Your task to perform on an android device: open a bookmark in the chrome app Image 0: 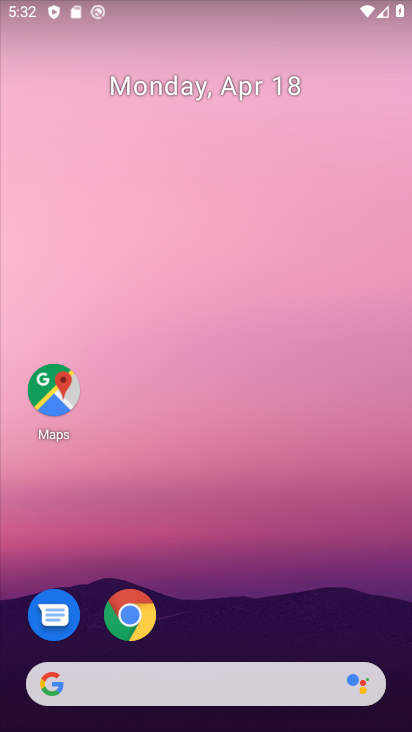
Step 0: drag from (299, 529) to (222, 61)
Your task to perform on an android device: open a bookmark in the chrome app Image 1: 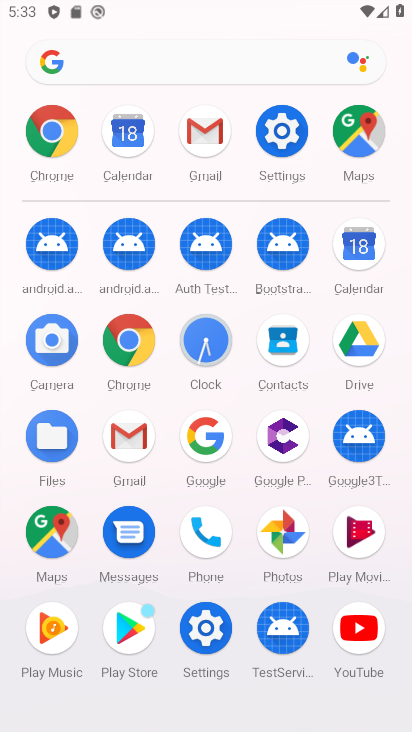
Step 1: click (53, 133)
Your task to perform on an android device: open a bookmark in the chrome app Image 2: 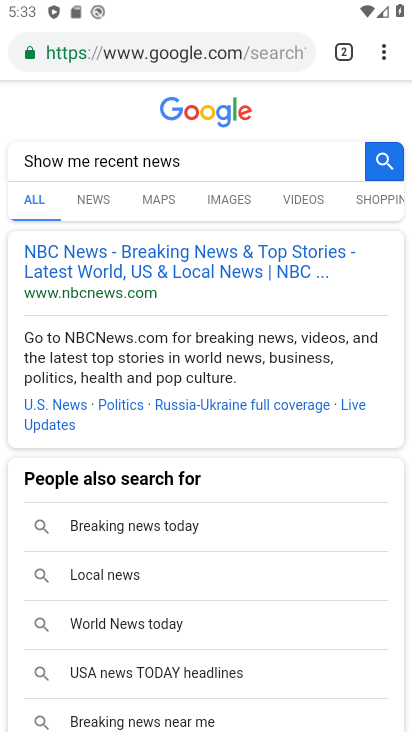
Step 2: task complete